Your task to perform on an android device: Open Google Maps Image 0: 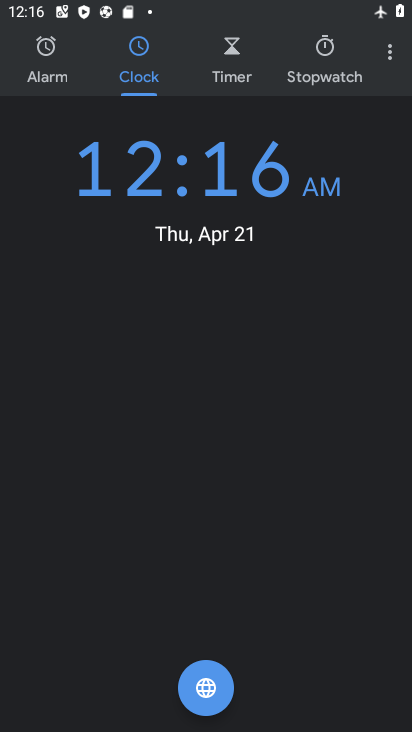
Step 0: press home button
Your task to perform on an android device: Open Google Maps Image 1: 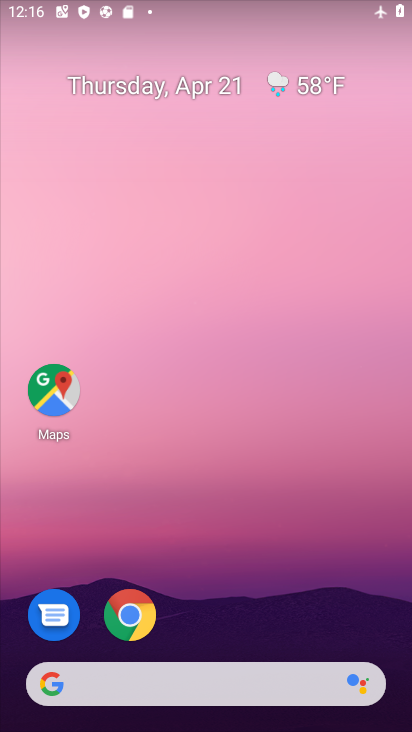
Step 1: drag from (366, 558) to (343, 173)
Your task to perform on an android device: Open Google Maps Image 2: 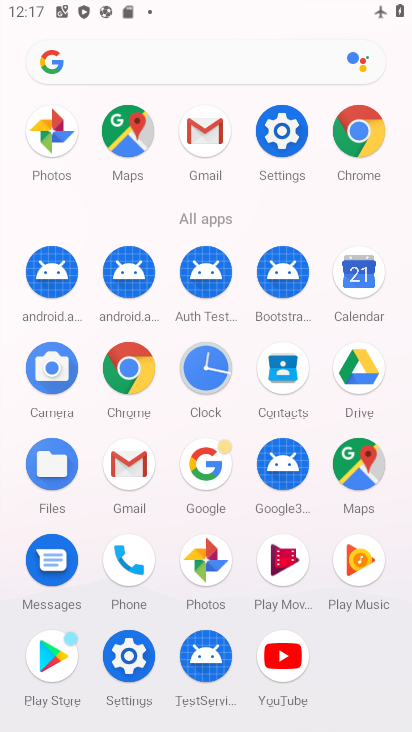
Step 2: click (136, 146)
Your task to perform on an android device: Open Google Maps Image 3: 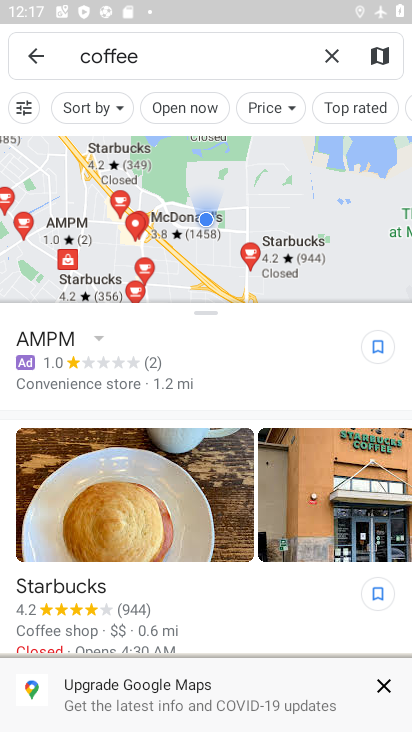
Step 3: task complete